Your task to perform on an android device: Clear the shopping cart on ebay.com. Search for razer kraken on ebay.com, select the first entry, and add it to the cart. Image 0: 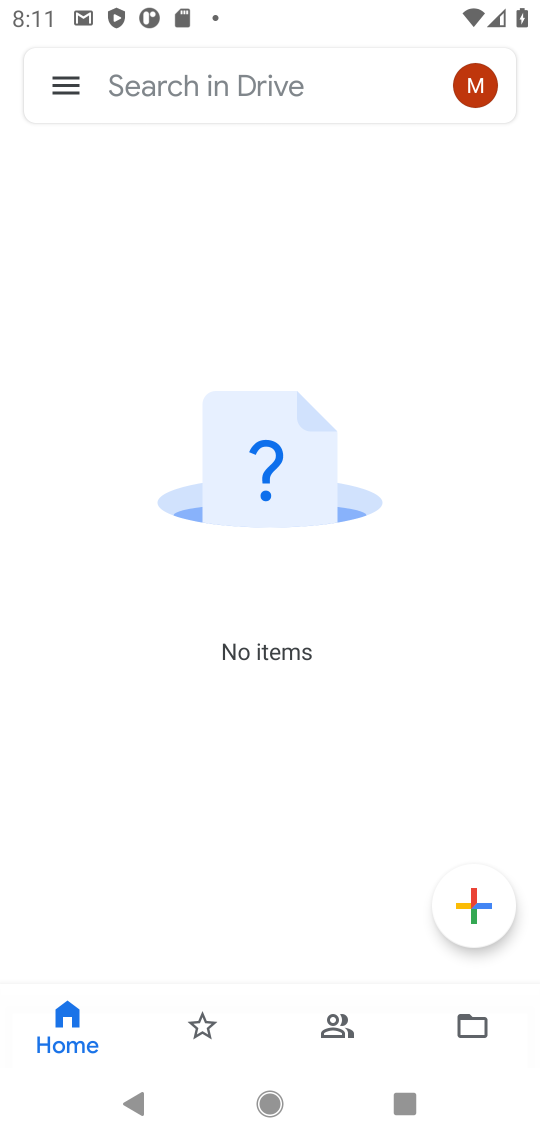
Step 0: press home button
Your task to perform on an android device: Clear the shopping cart on ebay.com. Search for razer kraken on ebay.com, select the first entry, and add it to the cart. Image 1: 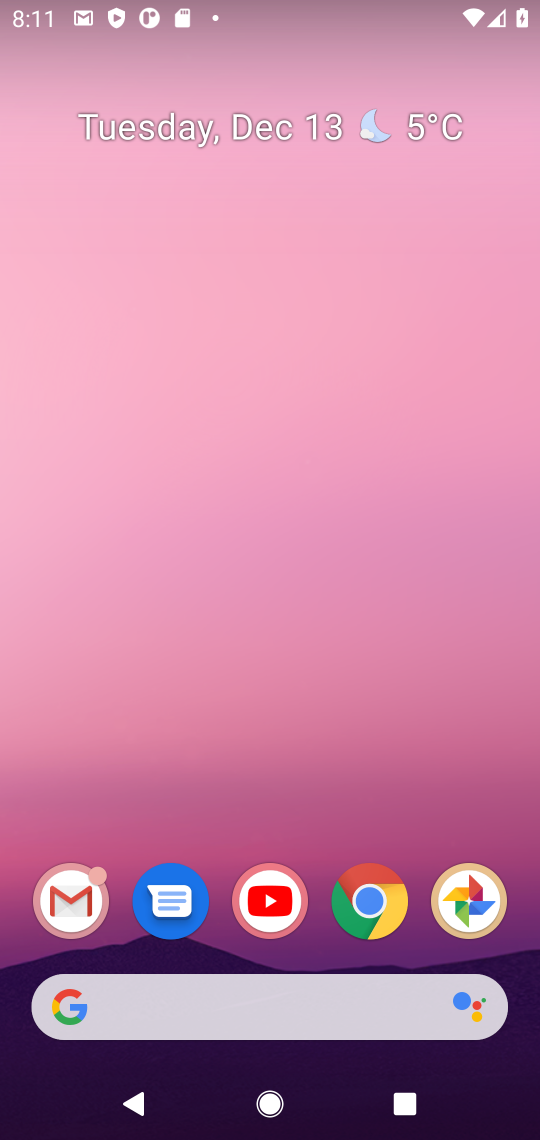
Step 1: click (364, 885)
Your task to perform on an android device: Clear the shopping cart on ebay.com. Search for razer kraken on ebay.com, select the first entry, and add it to the cart. Image 2: 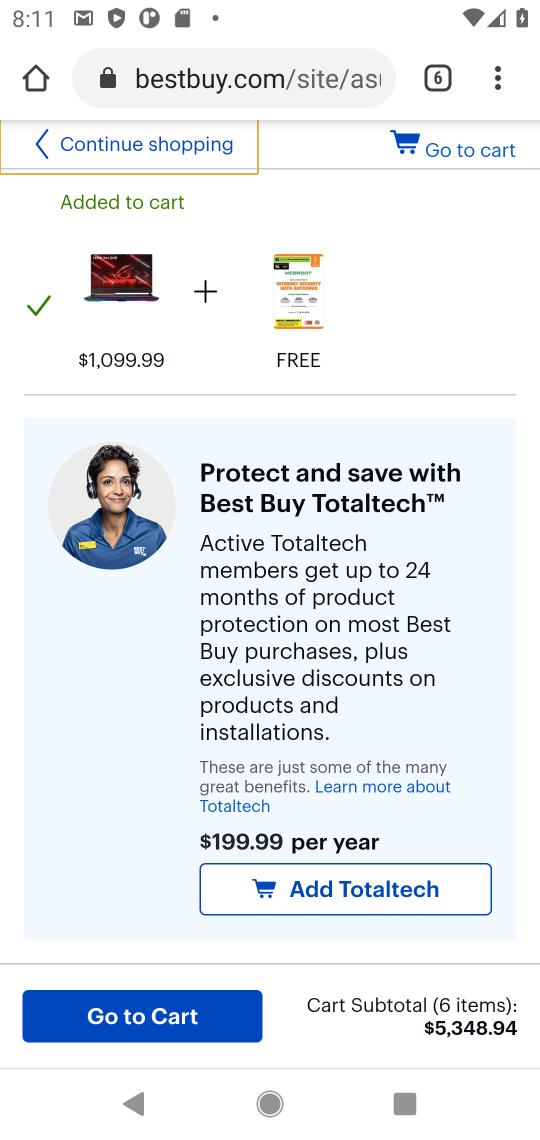
Step 2: click (439, 59)
Your task to perform on an android device: Clear the shopping cart on ebay.com. Search for razer kraken on ebay.com, select the first entry, and add it to the cart. Image 3: 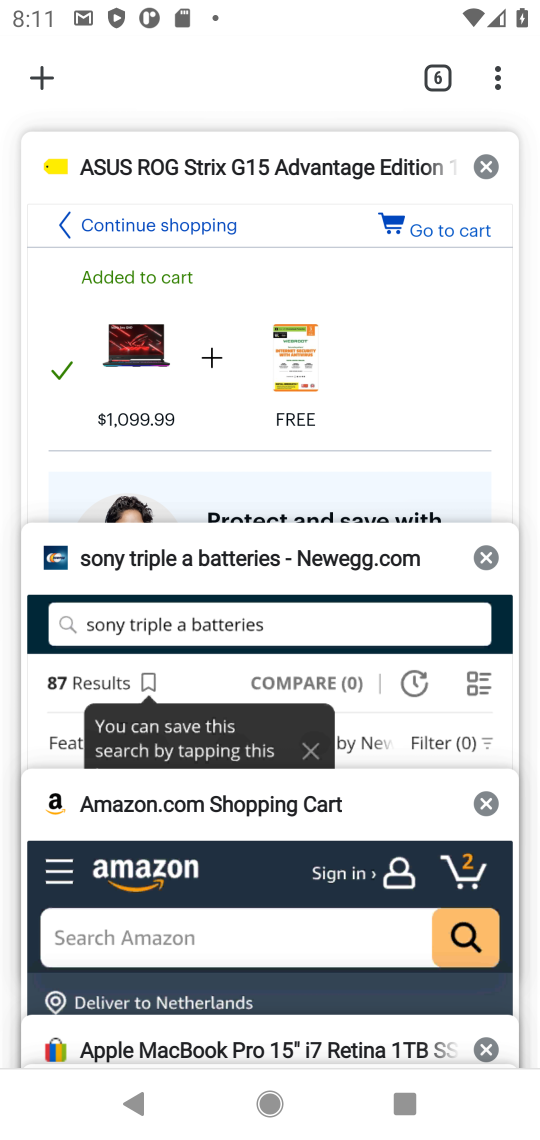
Step 3: click (175, 1042)
Your task to perform on an android device: Clear the shopping cart on ebay.com. Search for razer kraken on ebay.com, select the first entry, and add it to the cart. Image 4: 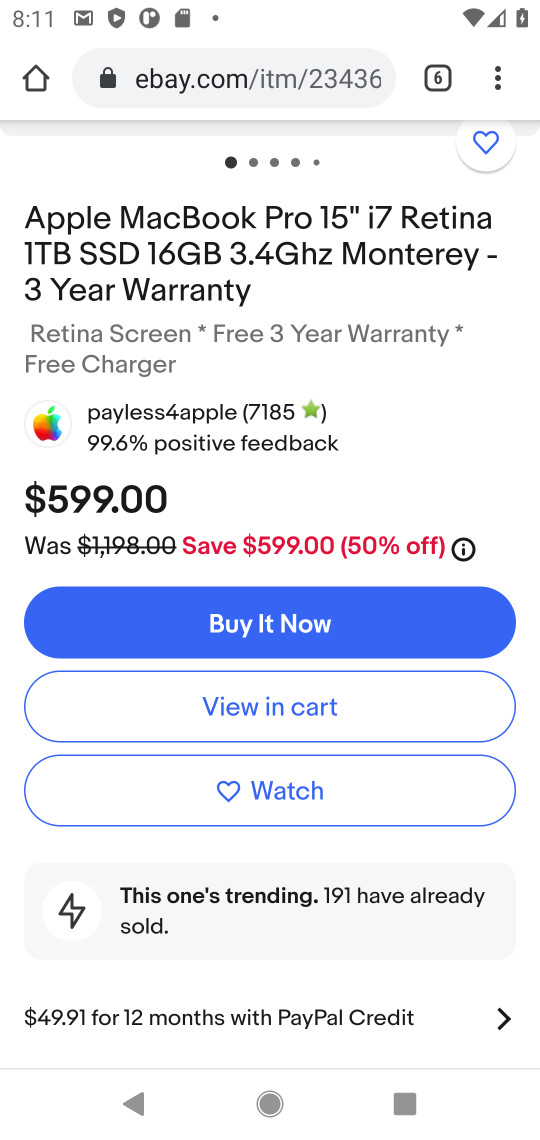
Step 4: click (152, 719)
Your task to perform on an android device: Clear the shopping cart on ebay.com. Search for razer kraken on ebay.com, select the first entry, and add it to the cart. Image 5: 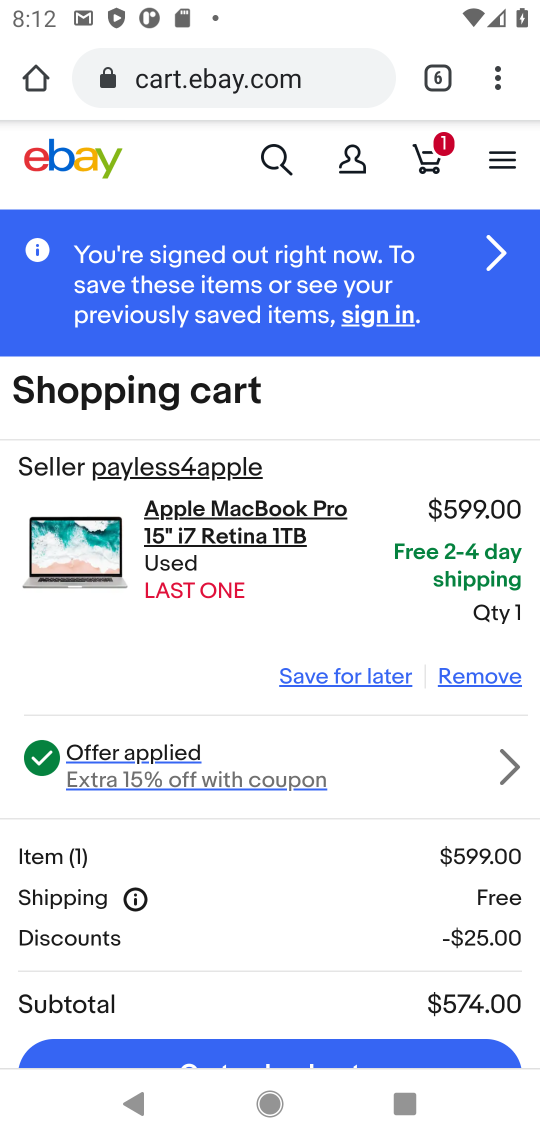
Step 5: click (465, 673)
Your task to perform on an android device: Clear the shopping cart on ebay.com. Search for razer kraken on ebay.com, select the first entry, and add it to the cart. Image 6: 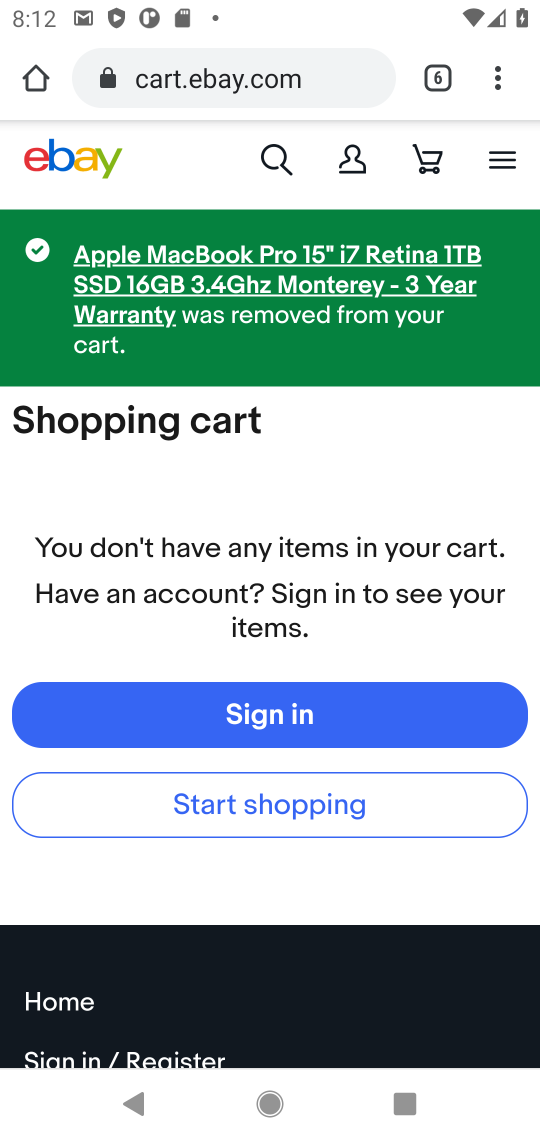
Step 6: click (267, 163)
Your task to perform on an android device: Clear the shopping cart on ebay.com. Search for razer kraken on ebay.com, select the first entry, and add it to the cart. Image 7: 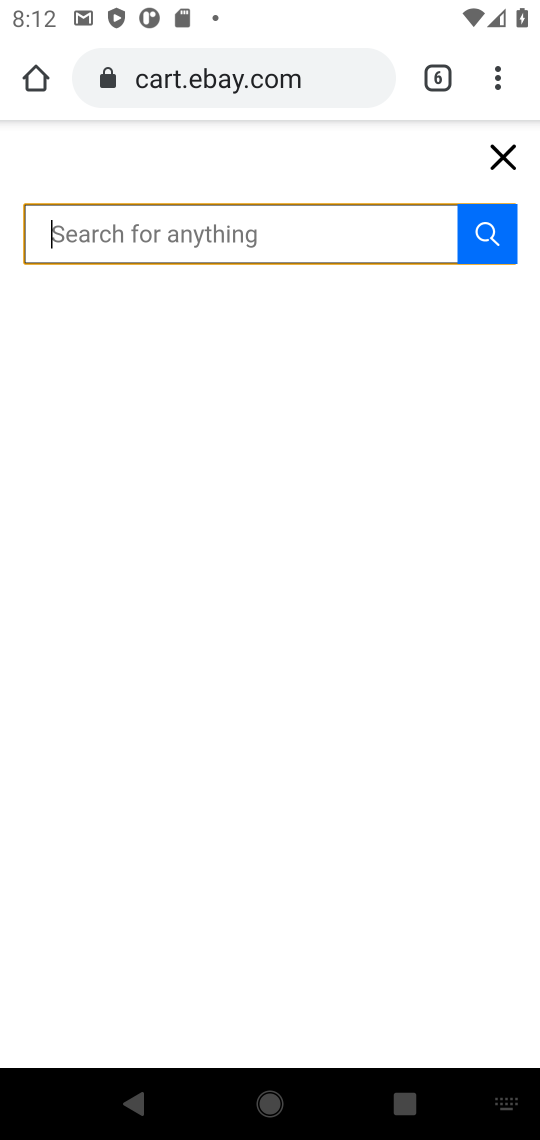
Step 7: type "razer kraken"
Your task to perform on an android device: Clear the shopping cart on ebay.com. Search for razer kraken on ebay.com, select the first entry, and add it to the cart. Image 8: 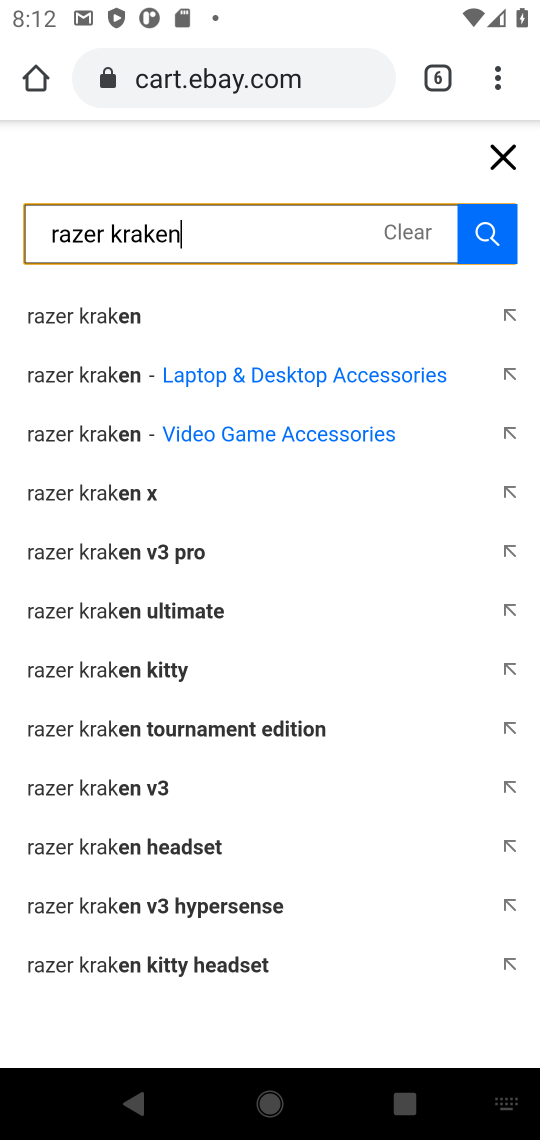
Step 8: click (93, 374)
Your task to perform on an android device: Clear the shopping cart on ebay.com. Search for razer kraken on ebay.com, select the first entry, and add it to the cart. Image 9: 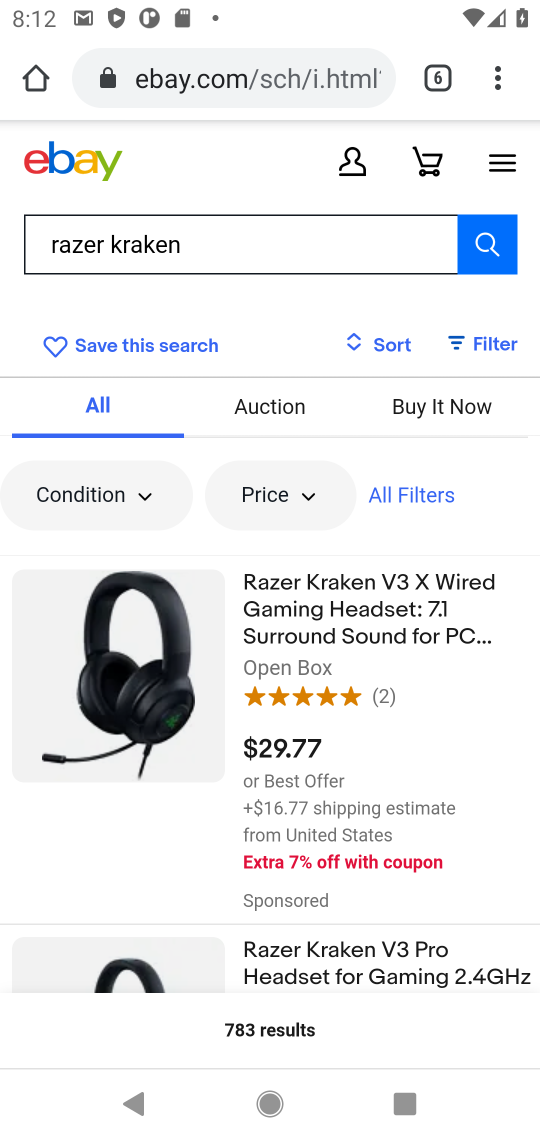
Step 9: click (339, 643)
Your task to perform on an android device: Clear the shopping cart on ebay.com. Search for razer kraken on ebay.com, select the first entry, and add it to the cart. Image 10: 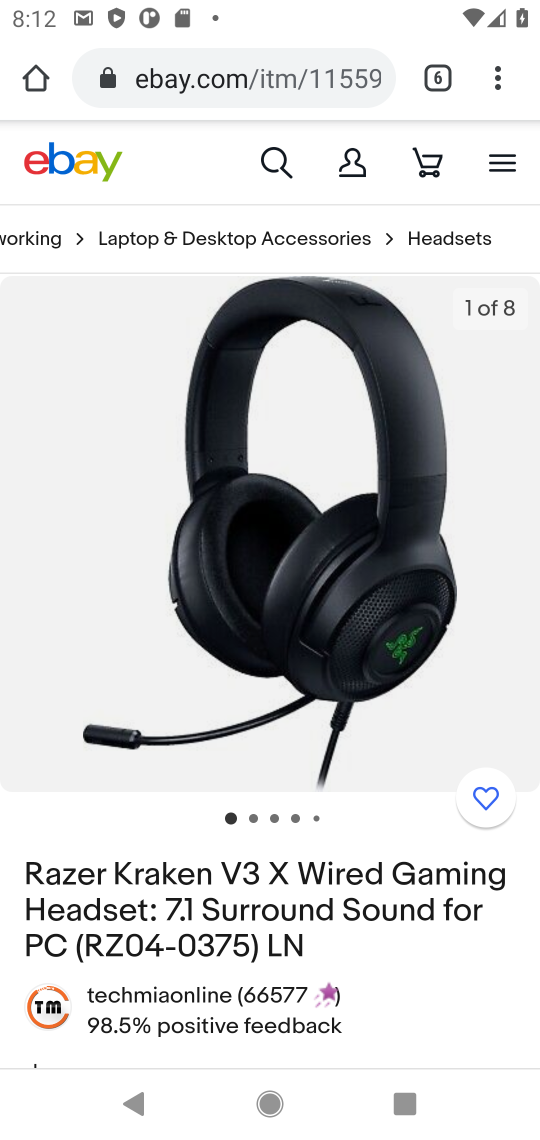
Step 10: drag from (366, 1023) to (460, 512)
Your task to perform on an android device: Clear the shopping cart on ebay.com. Search for razer kraken on ebay.com, select the first entry, and add it to the cart. Image 11: 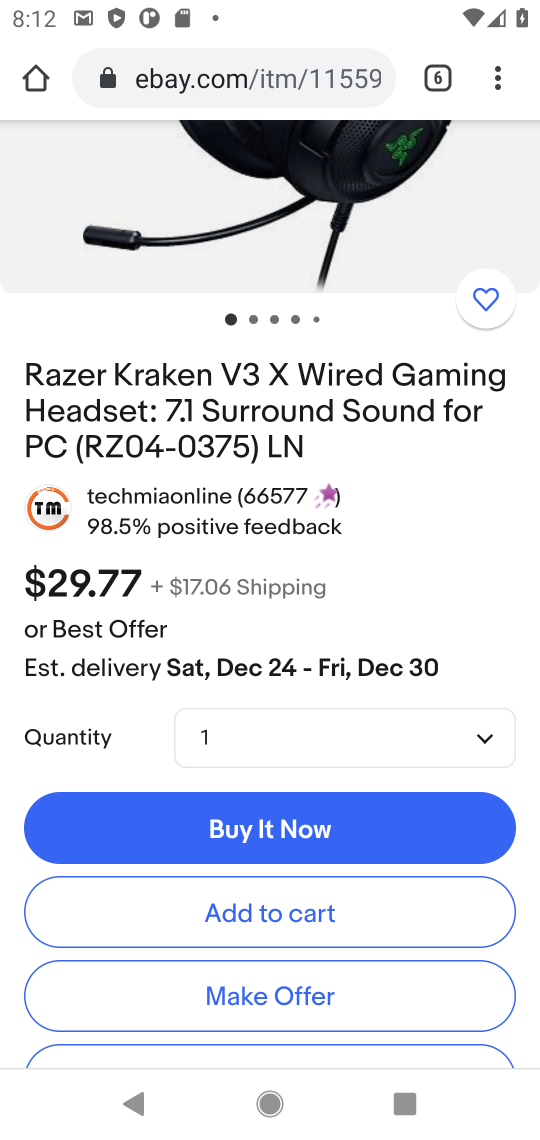
Step 11: click (394, 908)
Your task to perform on an android device: Clear the shopping cart on ebay.com. Search for razer kraken on ebay.com, select the first entry, and add it to the cart. Image 12: 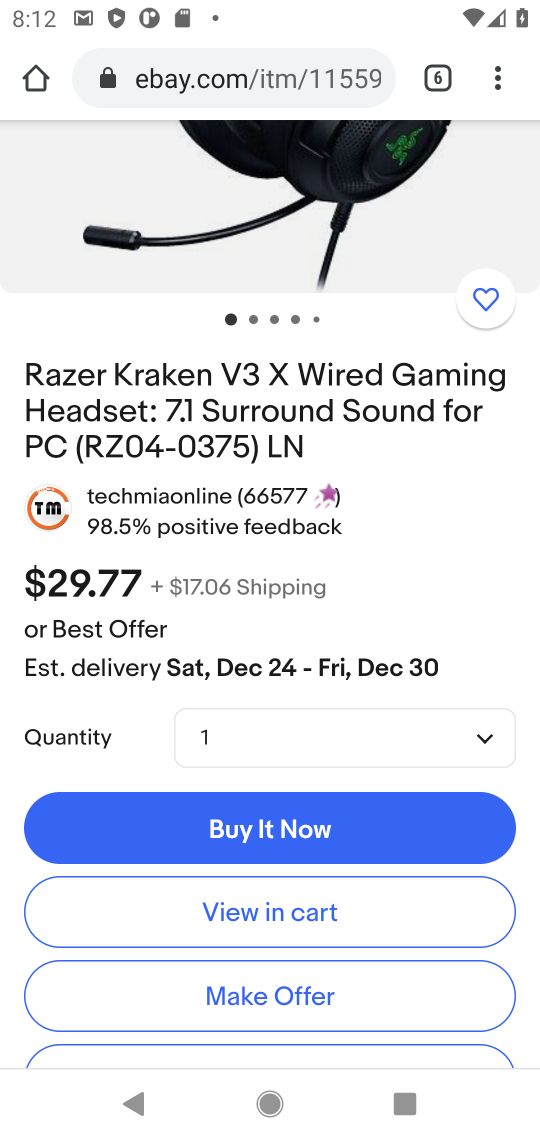
Step 12: task complete